Your task to perform on an android device: delete browsing data in the chrome app Image 0: 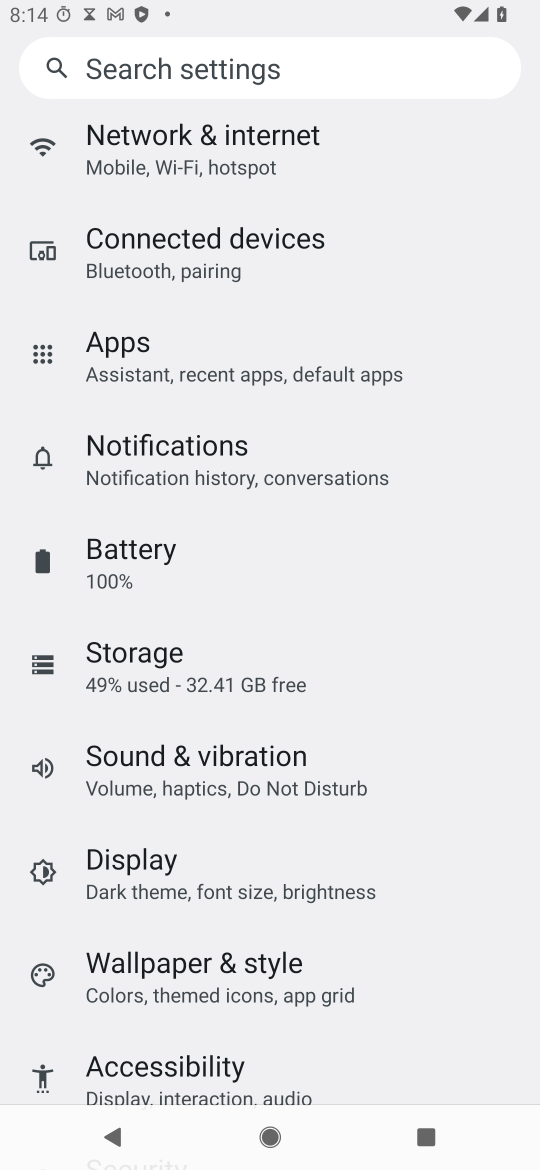
Step 0: drag from (332, 801) to (461, 6)
Your task to perform on an android device: delete browsing data in the chrome app Image 1: 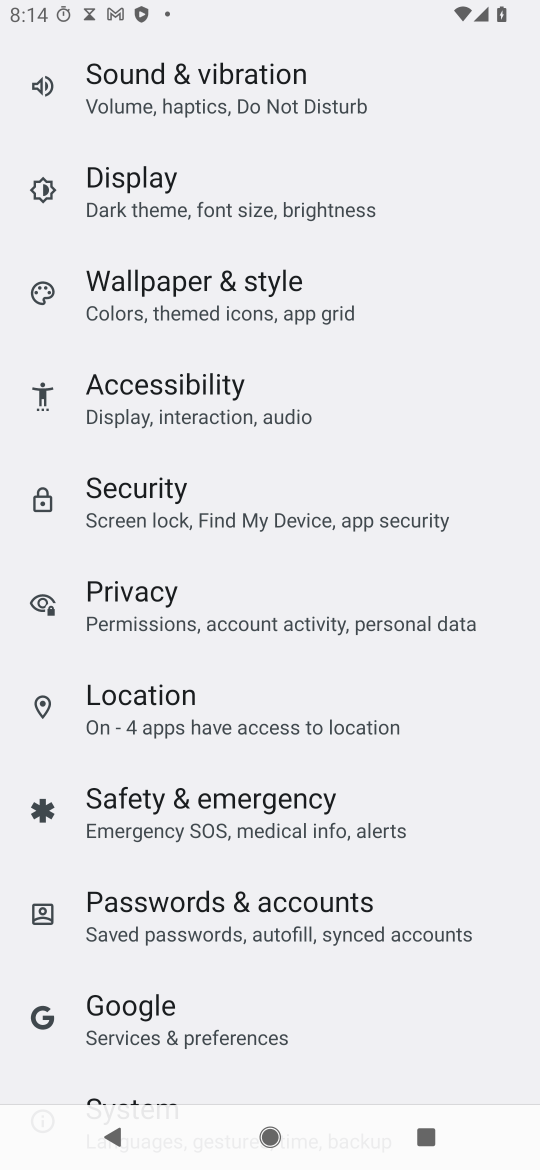
Step 1: press home button
Your task to perform on an android device: delete browsing data in the chrome app Image 2: 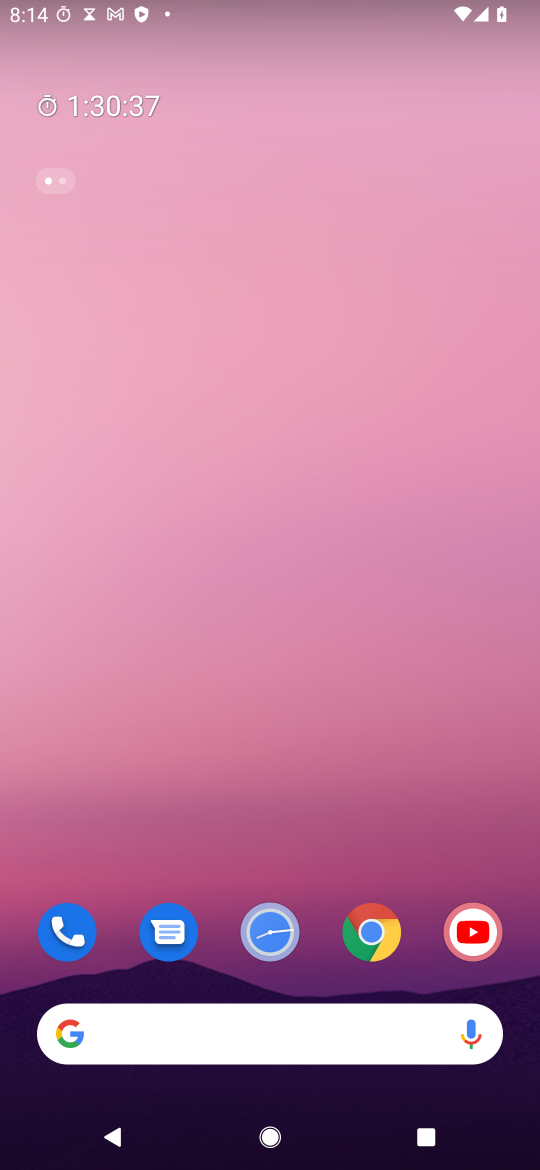
Step 2: click (372, 932)
Your task to perform on an android device: delete browsing data in the chrome app Image 3: 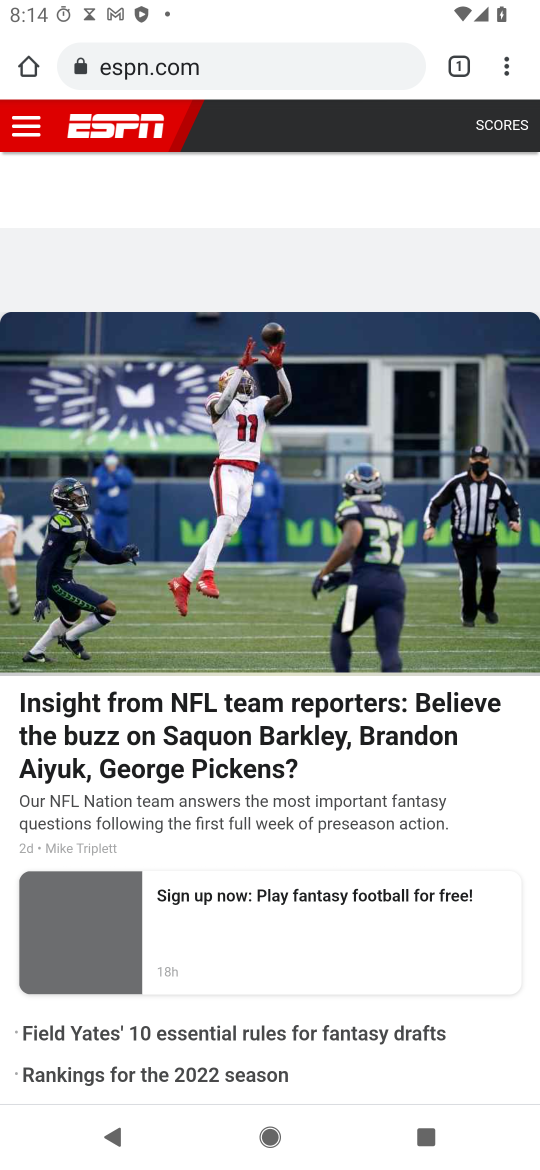
Step 3: drag from (501, 61) to (358, 883)
Your task to perform on an android device: delete browsing data in the chrome app Image 4: 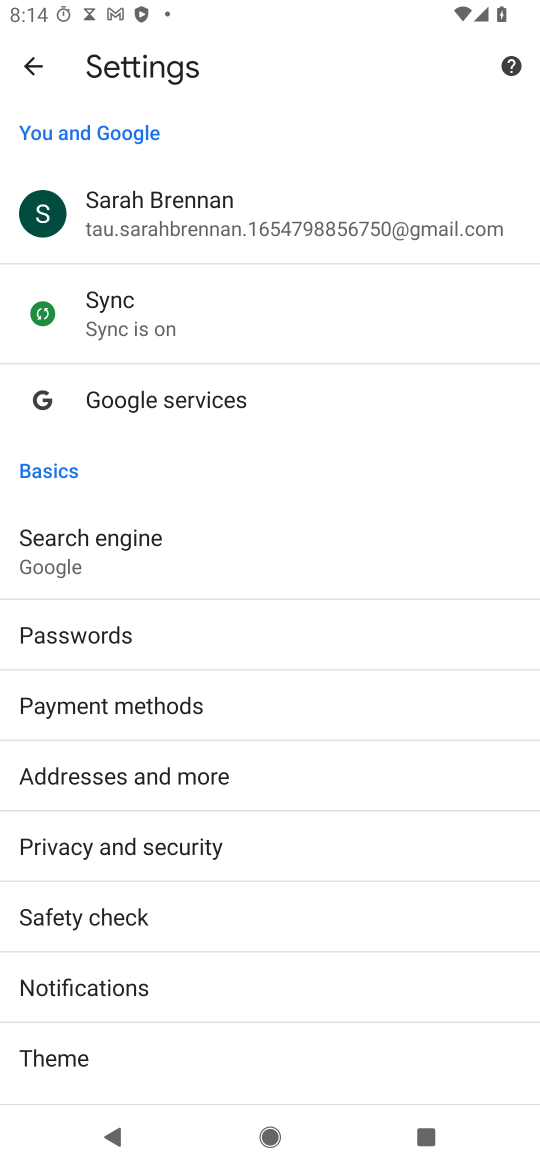
Step 4: drag from (217, 966) to (305, 327)
Your task to perform on an android device: delete browsing data in the chrome app Image 5: 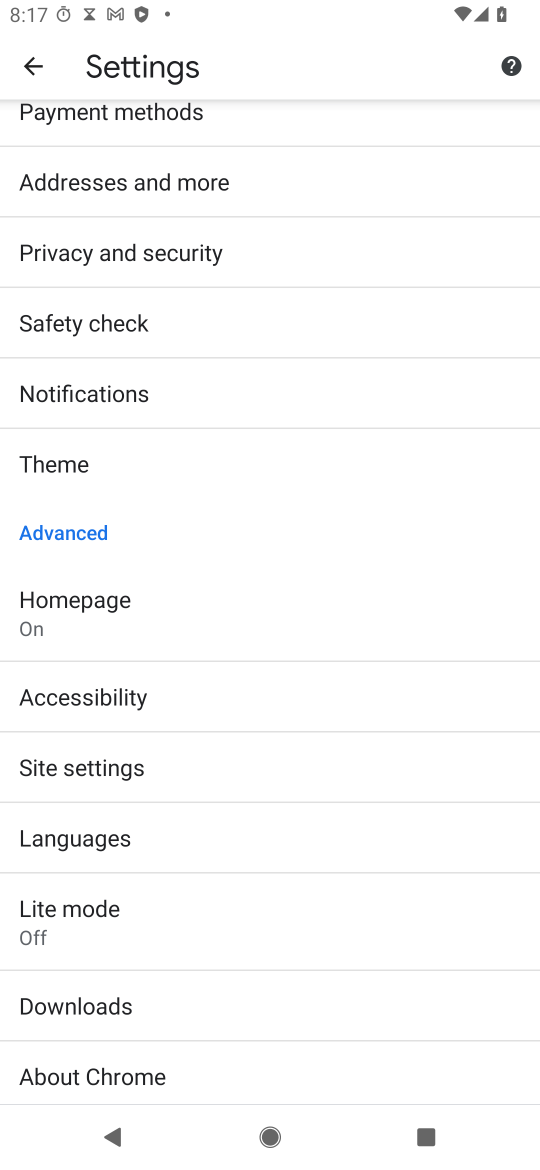
Step 5: click (123, 231)
Your task to perform on an android device: delete browsing data in the chrome app Image 6: 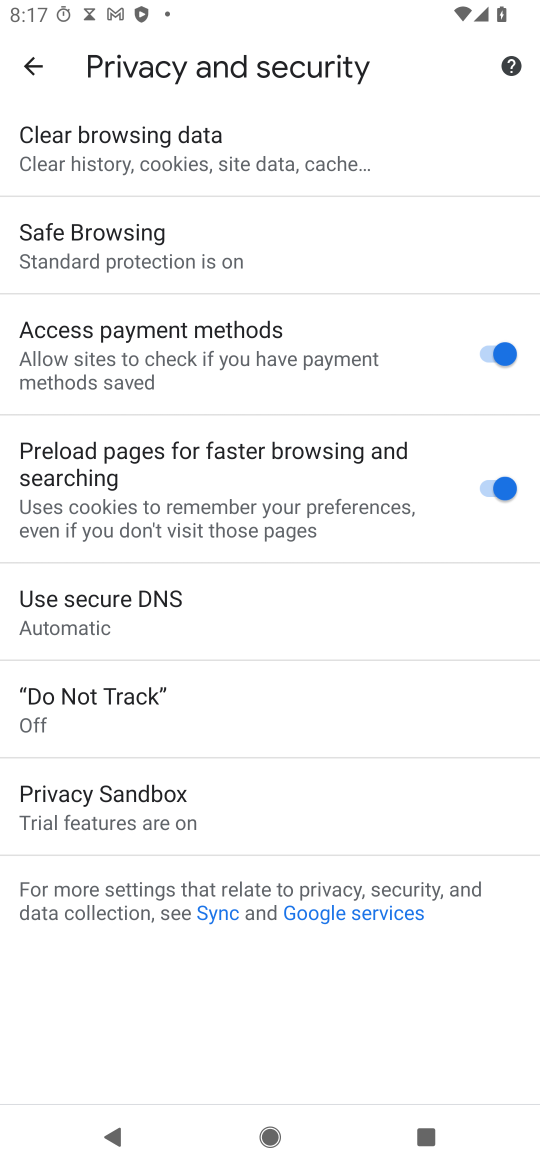
Step 6: click (163, 164)
Your task to perform on an android device: delete browsing data in the chrome app Image 7: 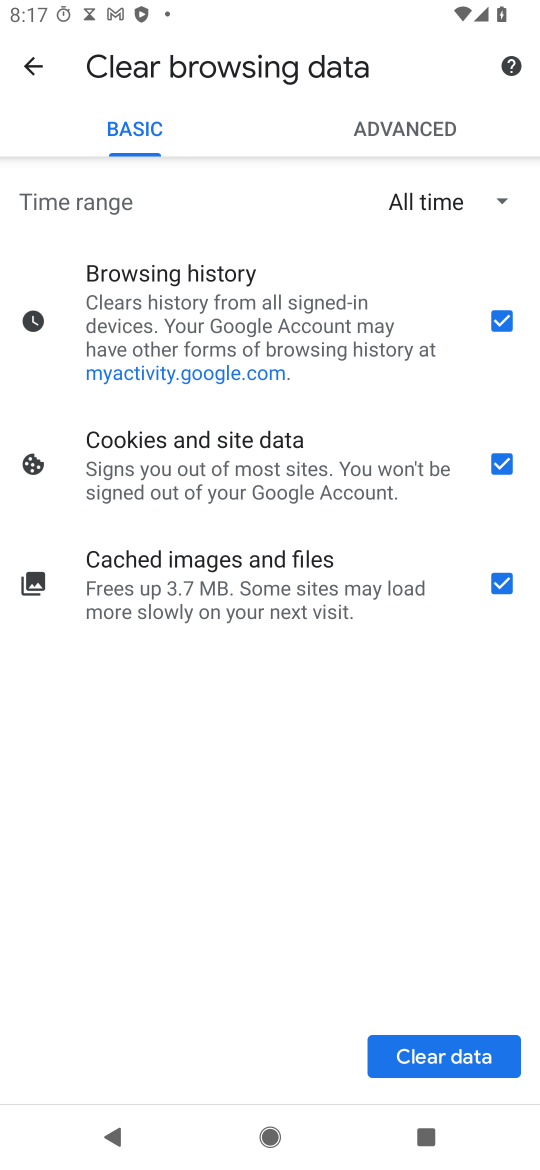
Step 7: click (452, 1034)
Your task to perform on an android device: delete browsing data in the chrome app Image 8: 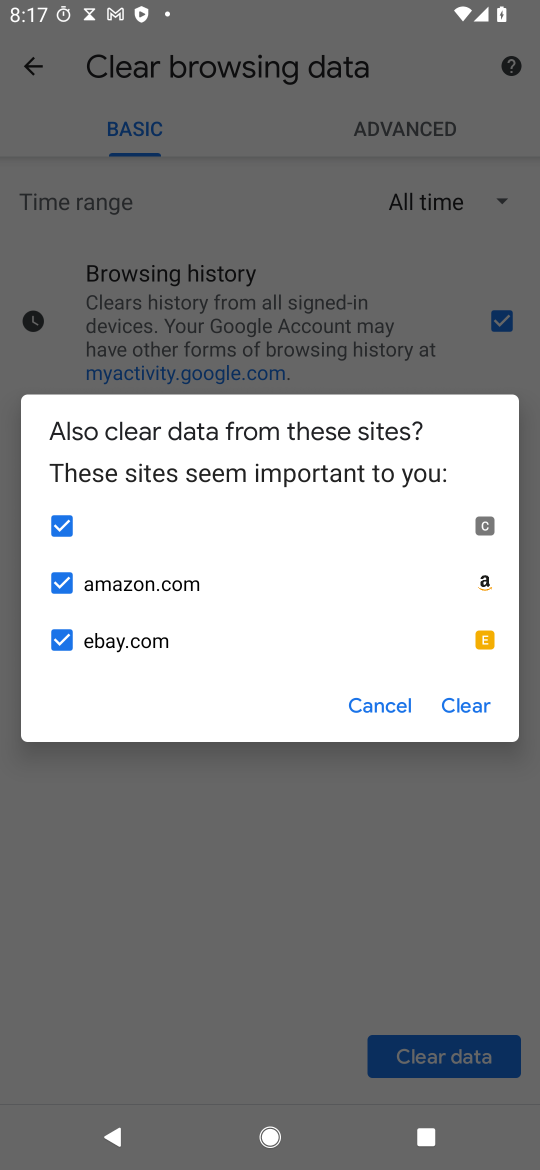
Step 8: click (473, 700)
Your task to perform on an android device: delete browsing data in the chrome app Image 9: 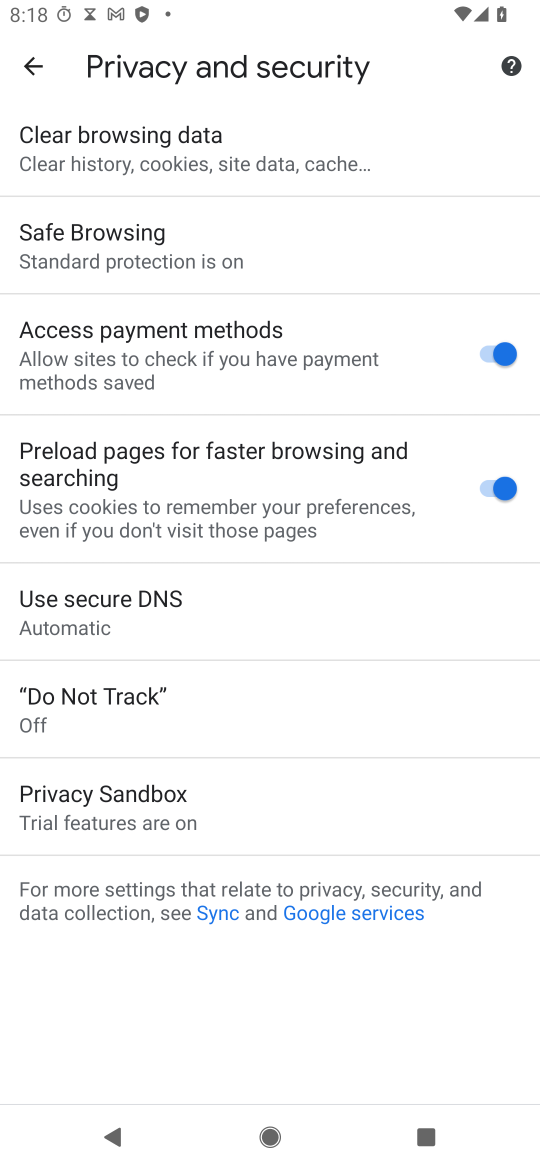
Step 9: click (91, 127)
Your task to perform on an android device: delete browsing data in the chrome app Image 10: 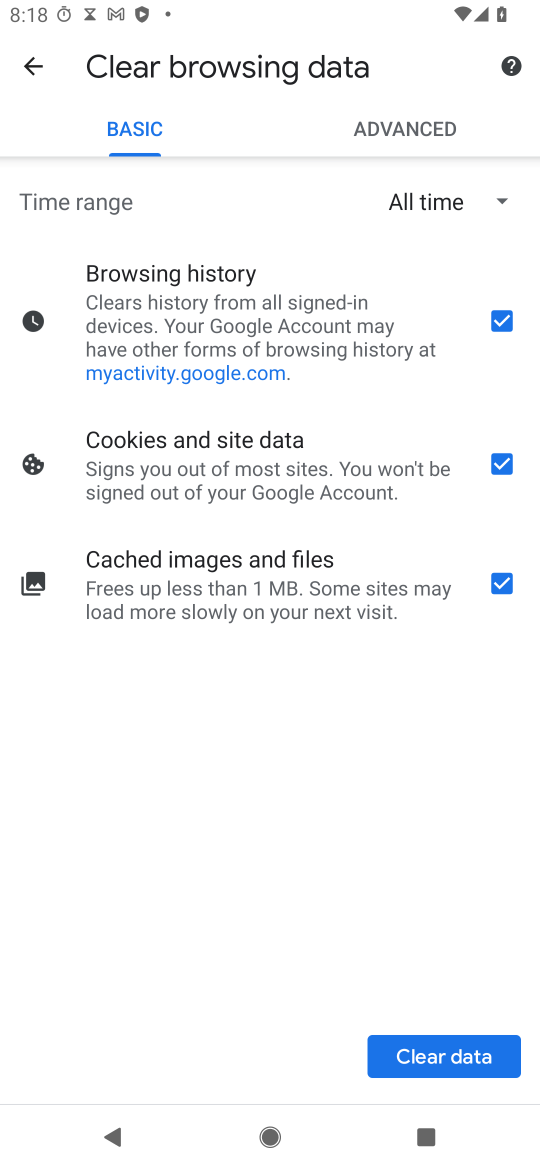
Step 10: click (492, 1048)
Your task to perform on an android device: delete browsing data in the chrome app Image 11: 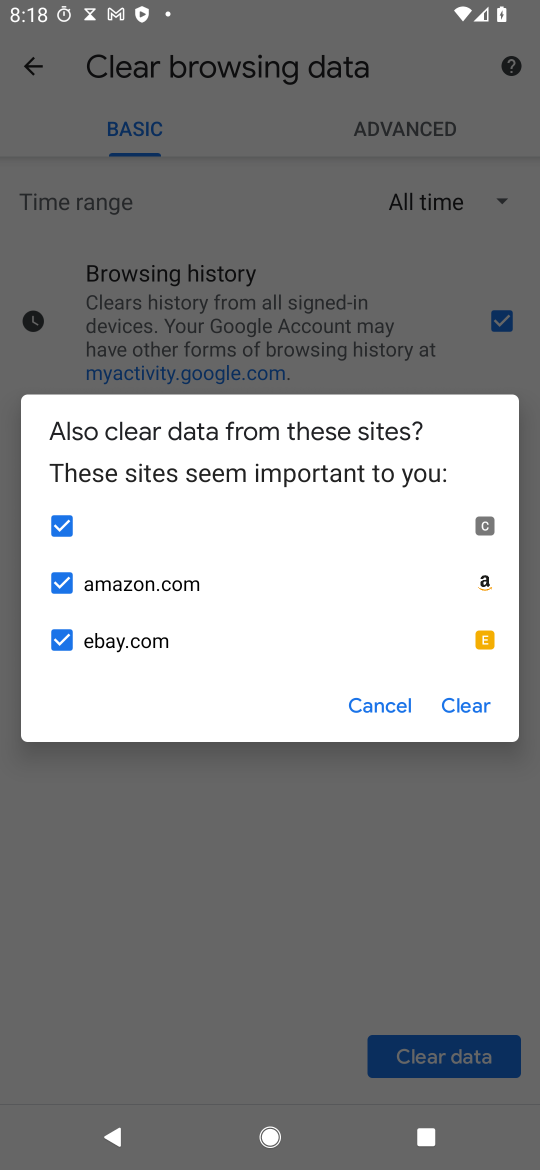
Step 11: task complete